Your task to perform on an android device: see tabs open on other devices in the chrome app Image 0: 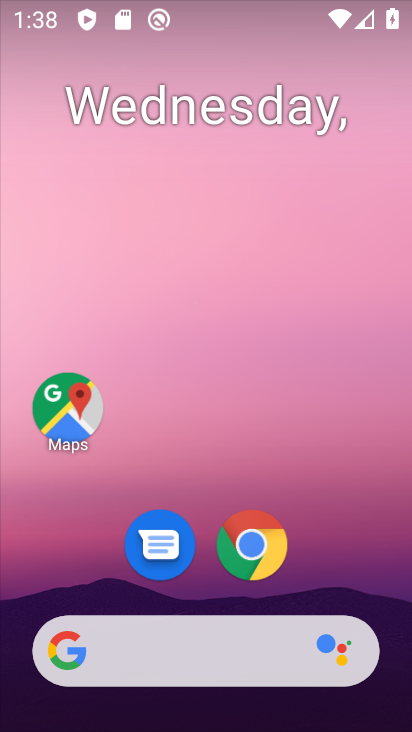
Step 0: click (263, 539)
Your task to perform on an android device: see tabs open on other devices in the chrome app Image 1: 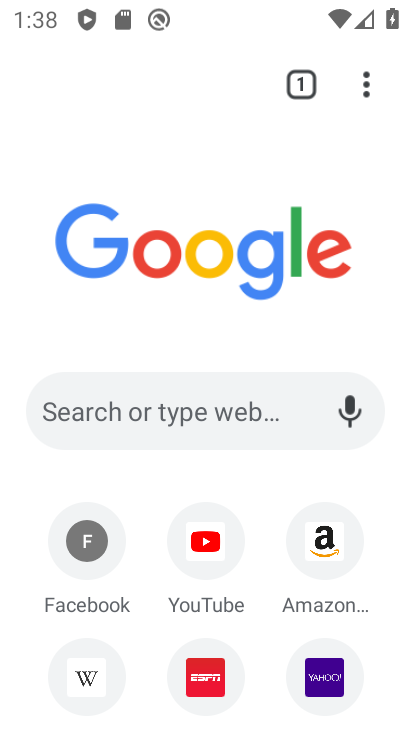
Step 1: click (372, 78)
Your task to perform on an android device: see tabs open on other devices in the chrome app Image 2: 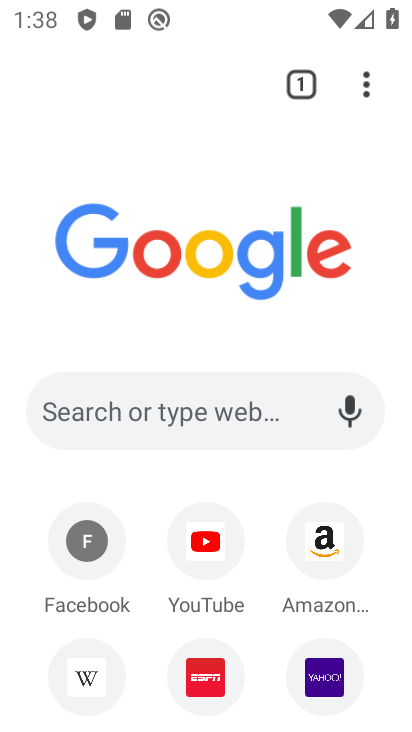
Step 2: click (367, 106)
Your task to perform on an android device: see tabs open on other devices in the chrome app Image 3: 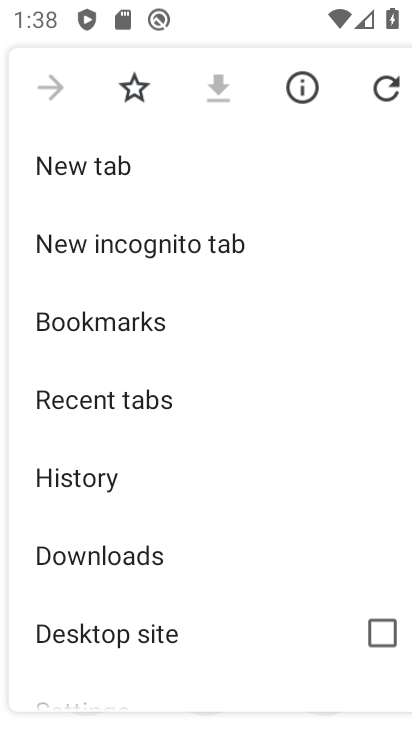
Step 3: click (180, 412)
Your task to perform on an android device: see tabs open on other devices in the chrome app Image 4: 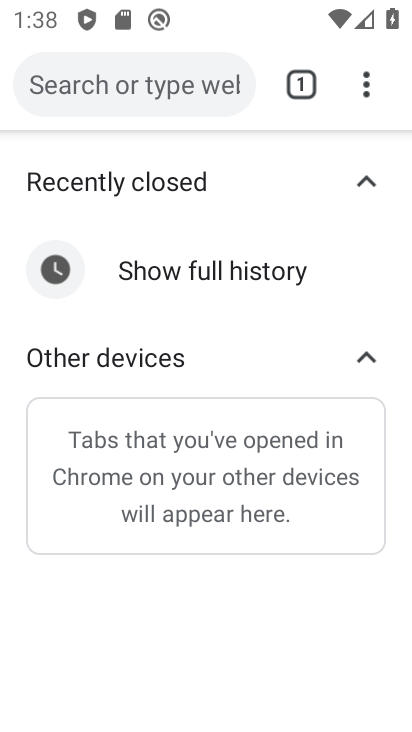
Step 4: task complete